Your task to perform on an android device: delete browsing data in the chrome app Image 0: 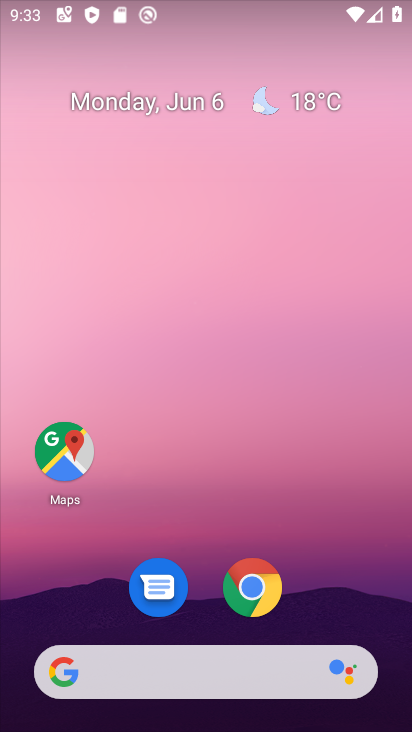
Step 0: drag from (332, 578) to (293, 138)
Your task to perform on an android device: delete browsing data in the chrome app Image 1: 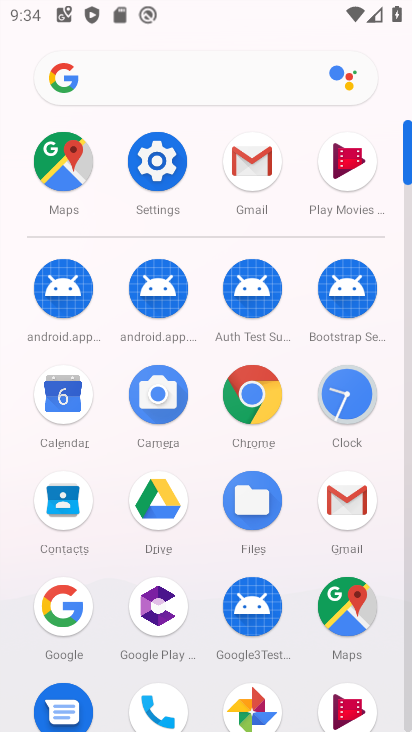
Step 1: click (256, 398)
Your task to perform on an android device: delete browsing data in the chrome app Image 2: 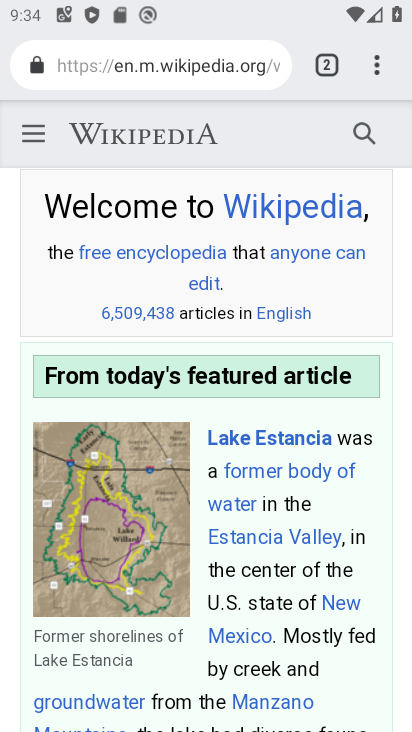
Step 2: drag from (386, 54) to (164, 379)
Your task to perform on an android device: delete browsing data in the chrome app Image 3: 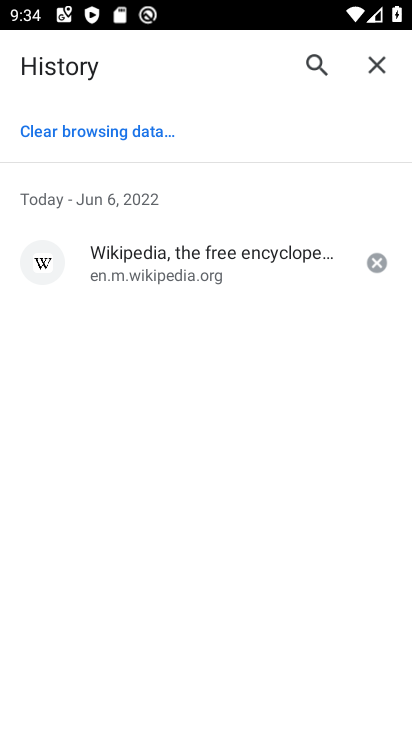
Step 3: click (124, 139)
Your task to perform on an android device: delete browsing data in the chrome app Image 4: 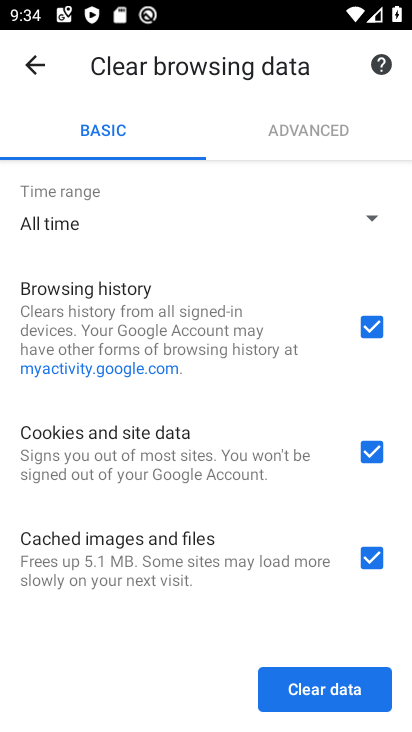
Step 4: click (341, 698)
Your task to perform on an android device: delete browsing data in the chrome app Image 5: 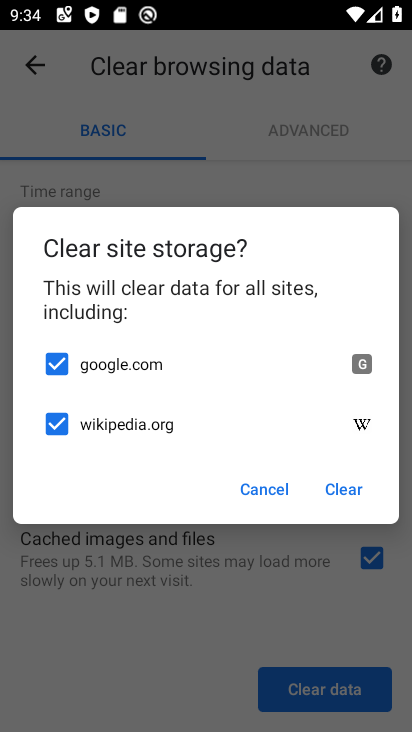
Step 5: click (330, 483)
Your task to perform on an android device: delete browsing data in the chrome app Image 6: 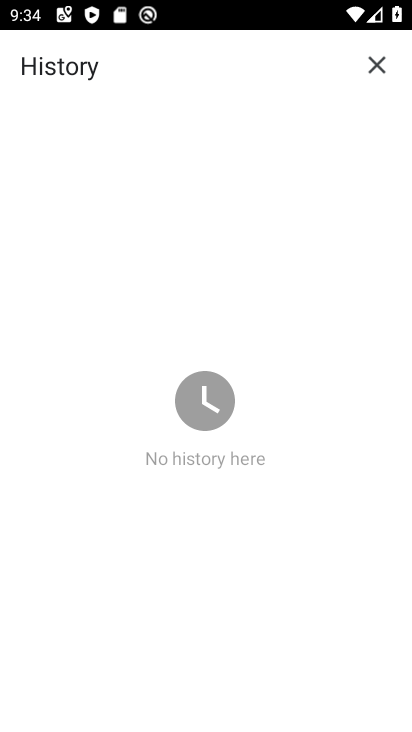
Step 6: task complete